Your task to perform on an android device: Open Maps and search for coffee Image 0: 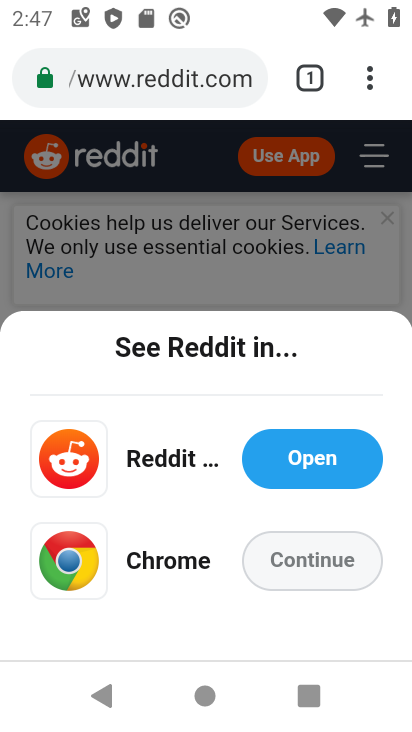
Step 0: press home button
Your task to perform on an android device: Open Maps and search for coffee Image 1: 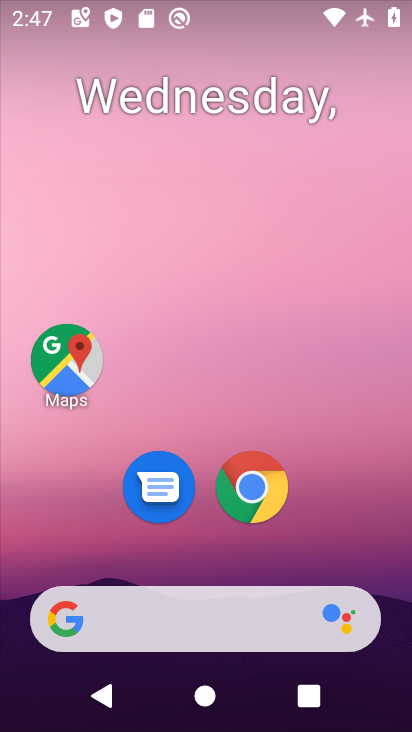
Step 1: click (58, 345)
Your task to perform on an android device: Open Maps and search for coffee Image 2: 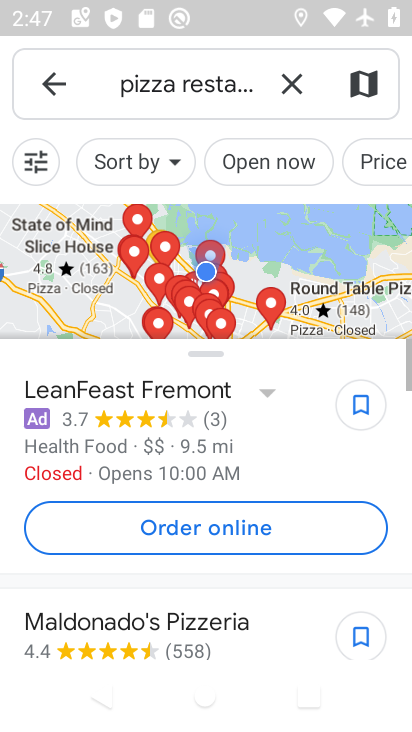
Step 2: click (283, 74)
Your task to perform on an android device: Open Maps and search for coffee Image 3: 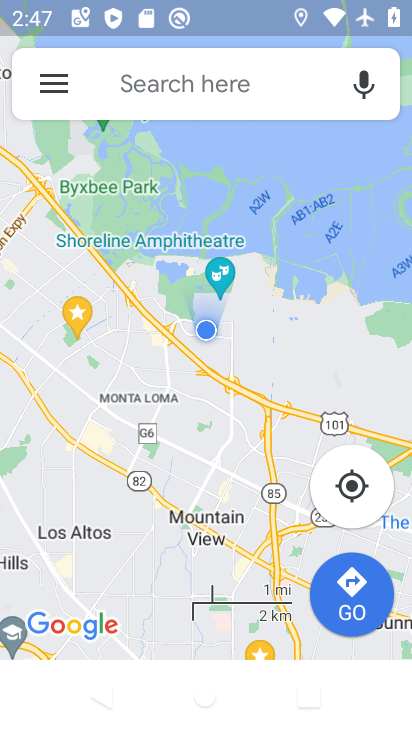
Step 3: click (283, 74)
Your task to perform on an android device: Open Maps and search for coffee Image 4: 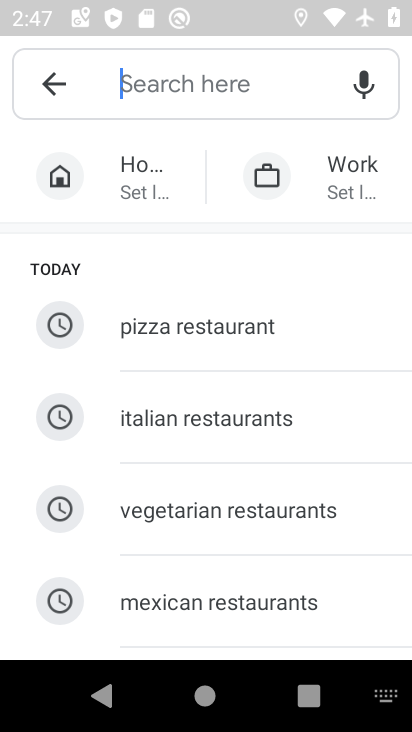
Step 4: drag from (165, 579) to (137, 167)
Your task to perform on an android device: Open Maps and search for coffee Image 5: 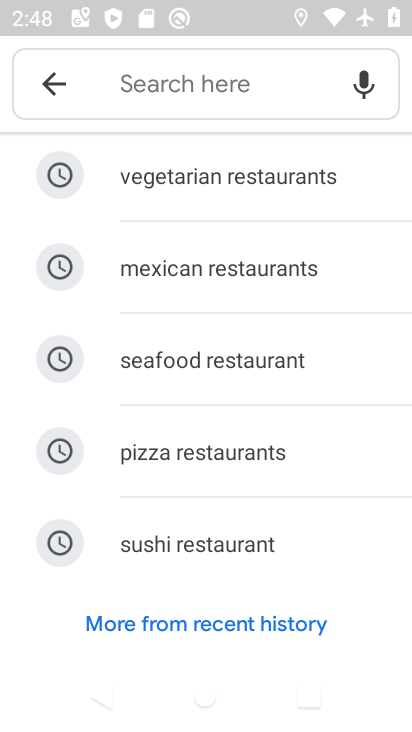
Step 5: click (282, 600)
Your task to perform on an android device: Open Maps and search for coffee Image 6: 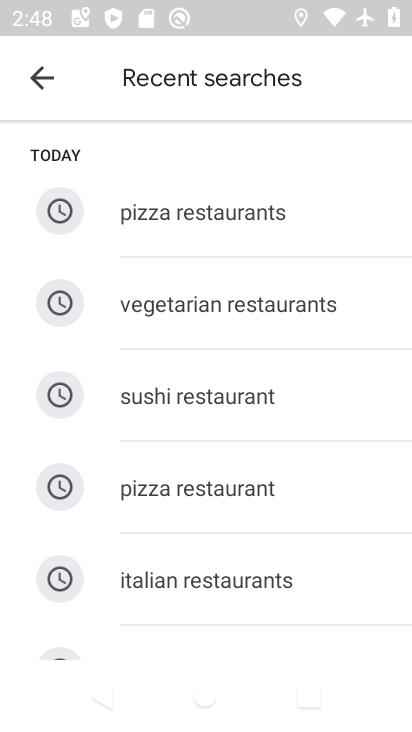
Step 6: drag from (256, 580) to (259, 238)
Your task to perform on an android device: Open Maps and search for coffee Image 7: 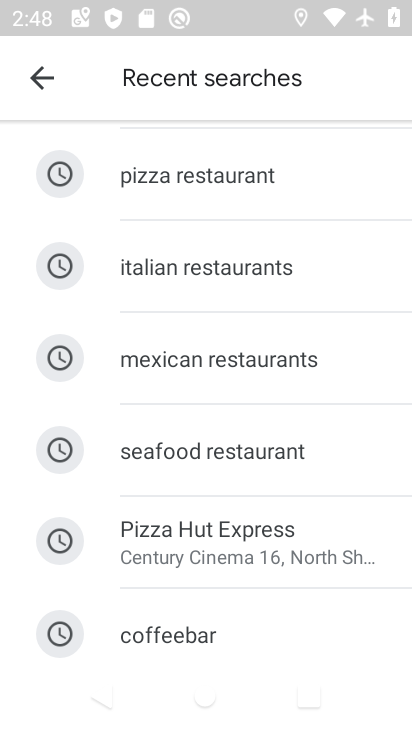
Step 7: drag from (294, 615) to (294, 172)
Your task to perform on an android device: Open Maps and search for coffee Image 8: 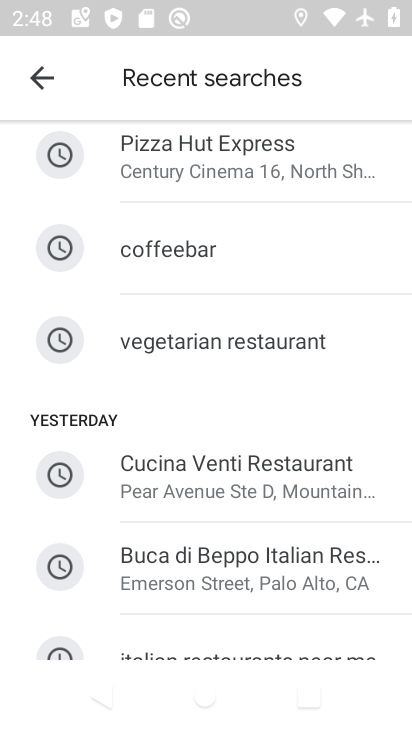
Step 8: click (256, 254)
Your task to perform on an android device: Open Maps and search for coffee Image 9: 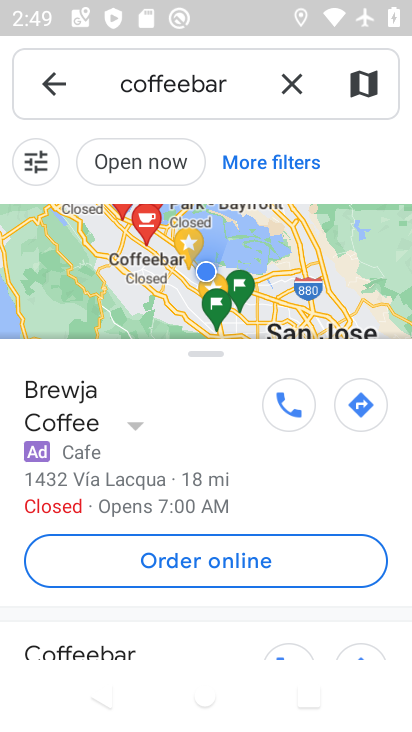
Step 9: task complete